Your task to perform on an android device: toggle show notifications on the lock screen Image 0: 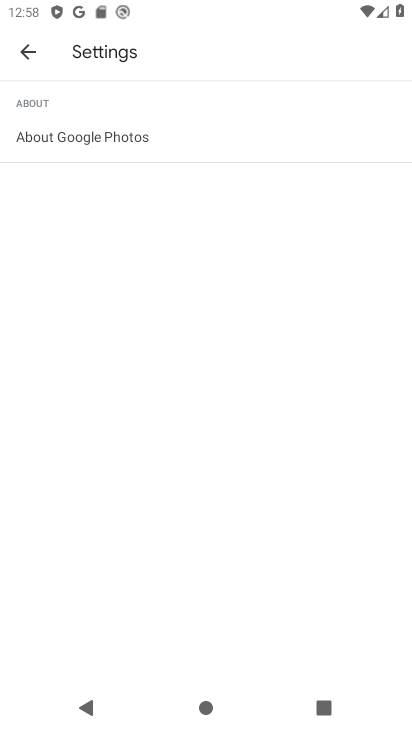
Step 0: press home button
Your task to perform on an android device: toggle show notifications on the lock screen Image 1: 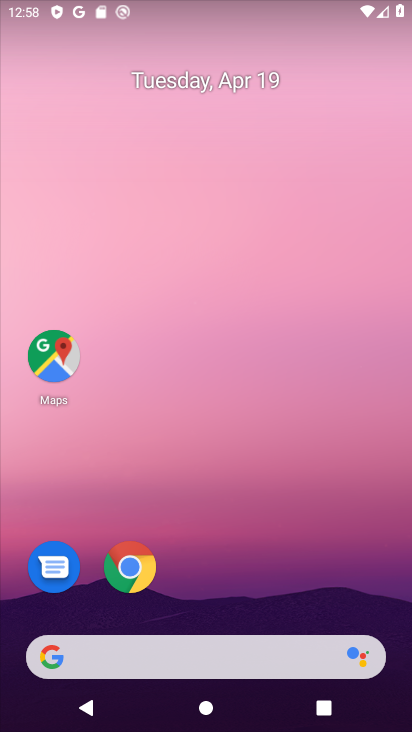
Step 1: drag from (271, 551) to (281, 98)
Your task to perform on an android device: toggle show notifications on the lock screen Image 2: 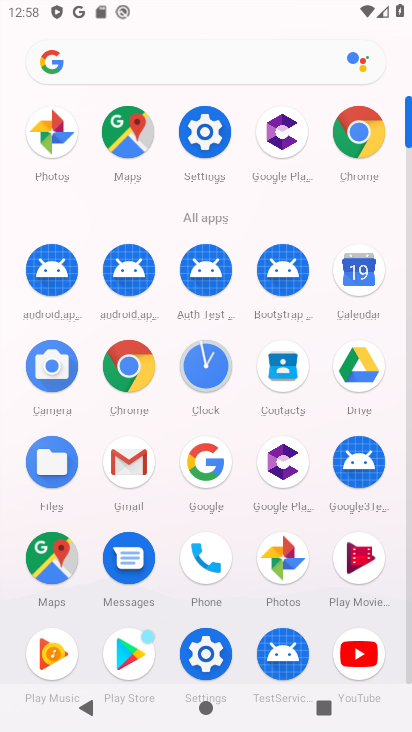
Step 2: click (207, 131)
Your task to perform on an android device: toggle show notifications on the lock screen Image 3: 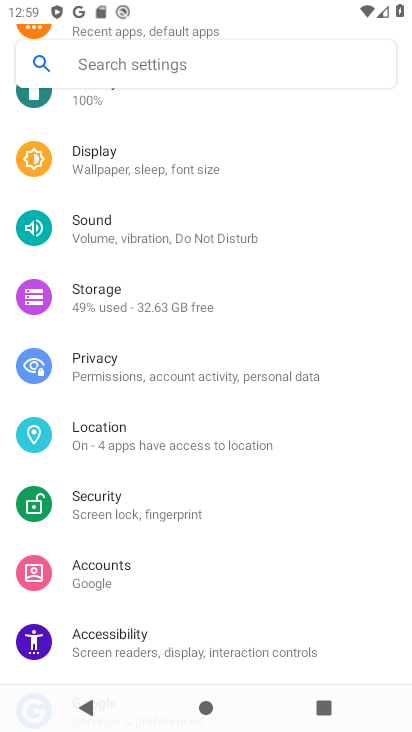
Step 3: drag from (212, 255) to (194, 619)
Your task to perform on an android device: toggle show notifications on the lock screen Image 4: 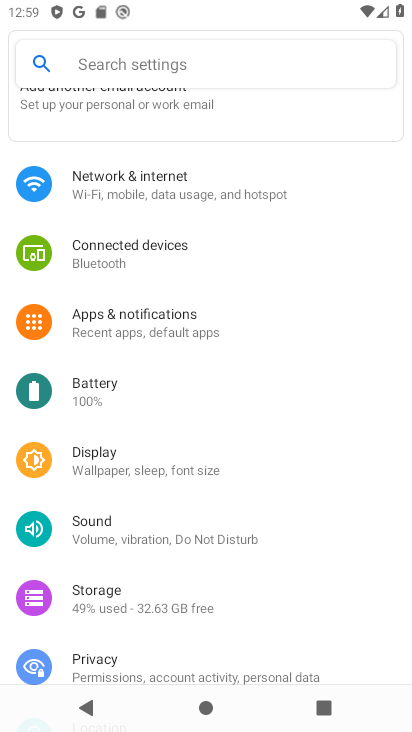
Step 4: drag from (201, 612) to (235, 319)
Your task to perform on an android device: toggle show notifications on the lock screen Image 5: 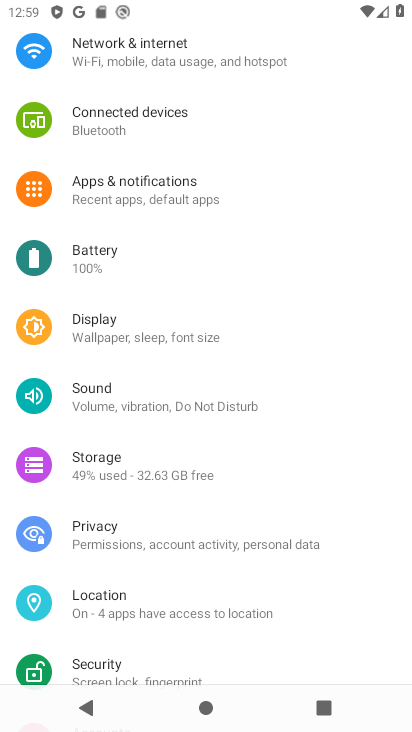
Step 5: click (130, 176)
Your task to perform on an android device: toggle show notifications on the lock screen Image 6: 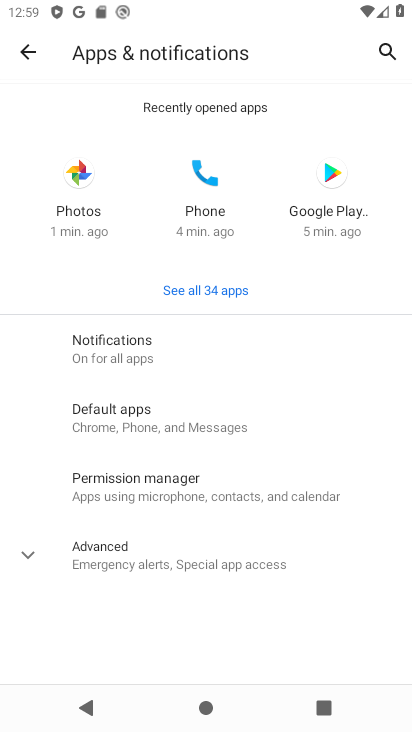
Step 6: click (210, 331)
Your task to perform on an android device: toggle show notifications on the lock screen Image 7: 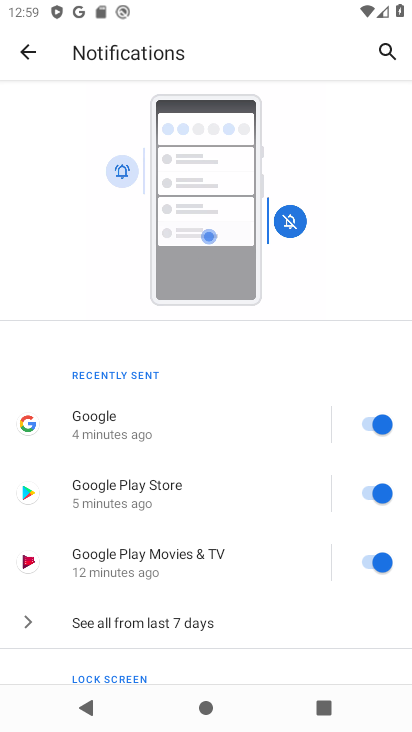
Step 7: drag from (272, 577) to (280, 143)
Your task to perform on an android device: toggle show notifications on the lock screen Image 8: 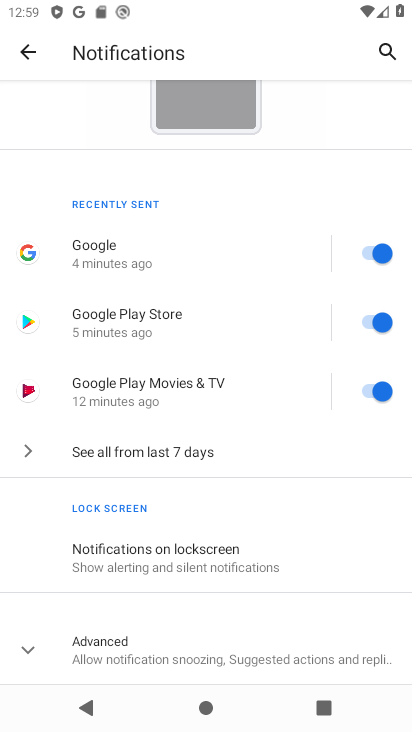
Step 8: click (261, 545)
Your task to perform on an android device: toggle show notifications on the lock screen Image 9: 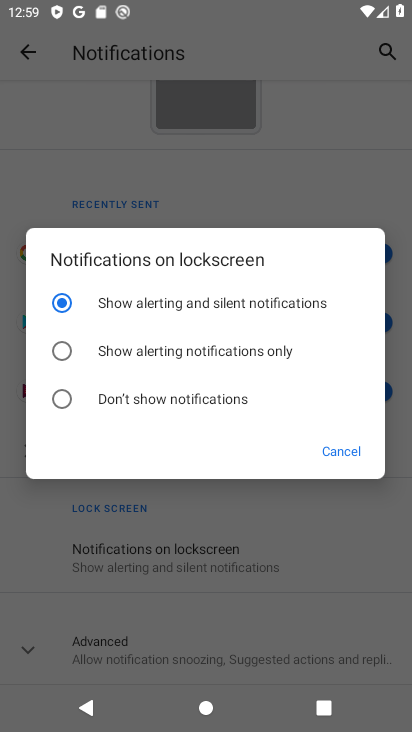
Step 9: click (223, 358)
Your task to perform on an android device: toggle show notifications on the lock screen Image 10: 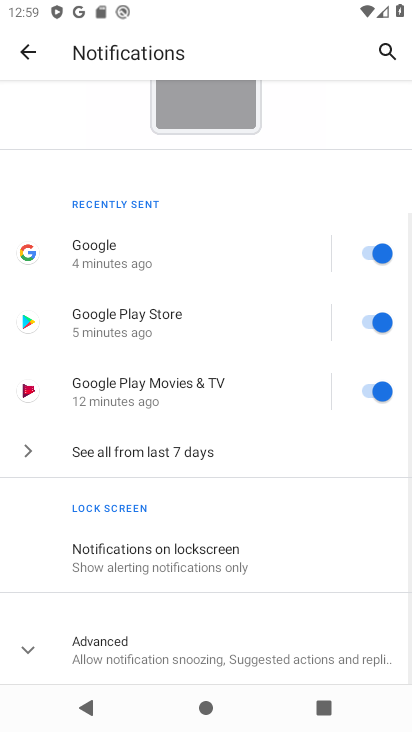
Step 10: task complete